Your task to perform on an android device: turn off notifications settings in the gmail app Image 0: 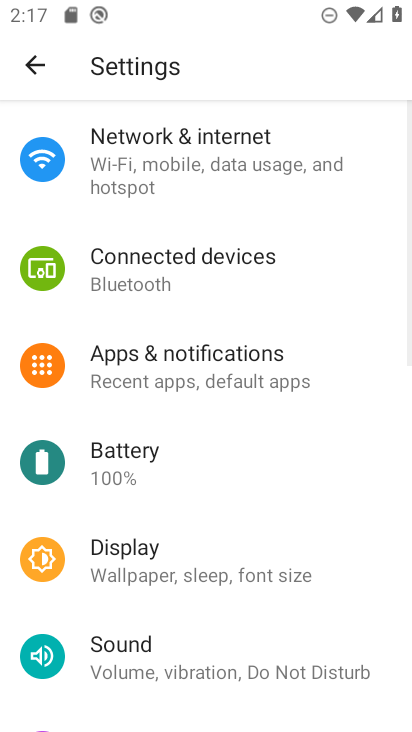
Step 0: press home button
Your task to perform on an android device: turn off notifications settings in the gmail app Image 1: 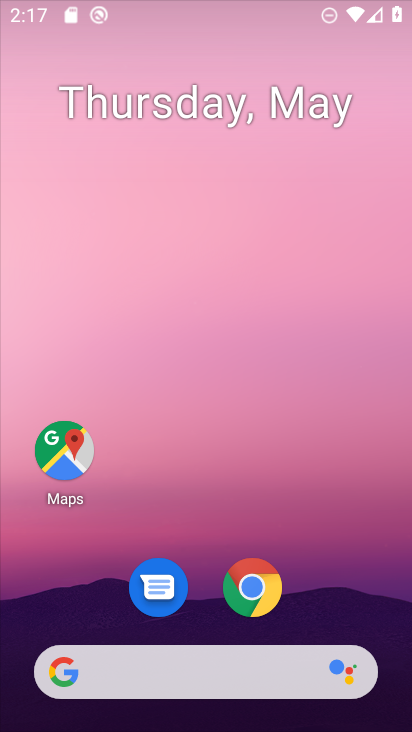
Step 1: drag from (310, 562) to (375, 130)
Your task to perform on an android device: turn off notifications settings in the gmail app Image 2: 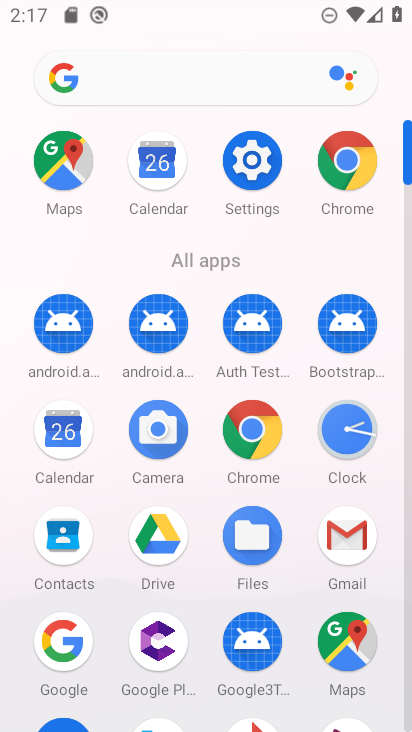
Step 2: click (344, 540)
Your task to perform on an android device: turn off notifications settings in the gmail app Image 3: 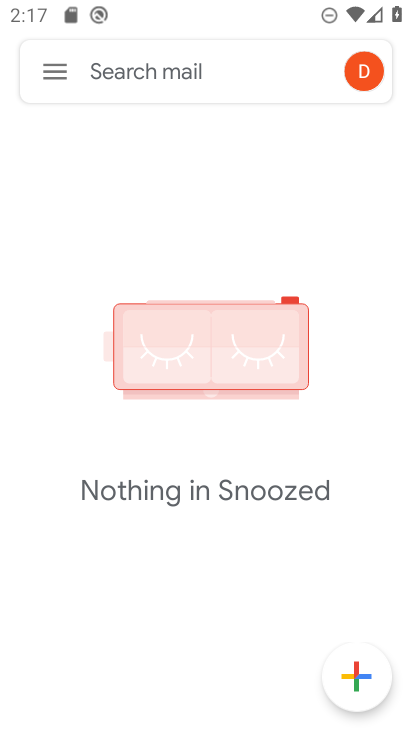
Step 3: click (47, 73)
Your task to perform on an android device: turn off notifications settings in the gmail app Image 4: 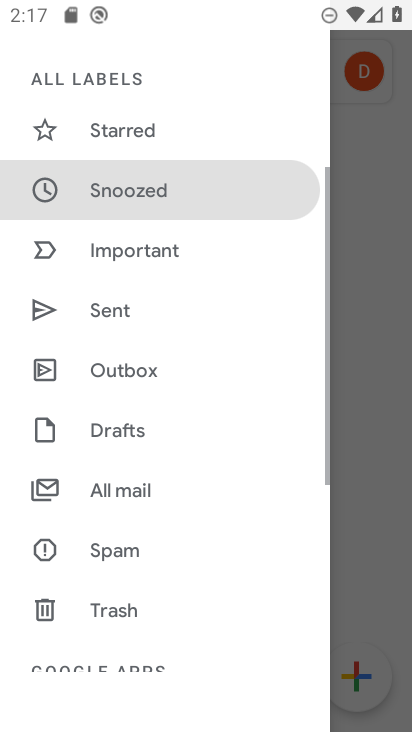
Step 4: drag from (141, 582) to (209, 112)
Your task to perform on an android device: turn off notifications settings in the gmail app Image 5: 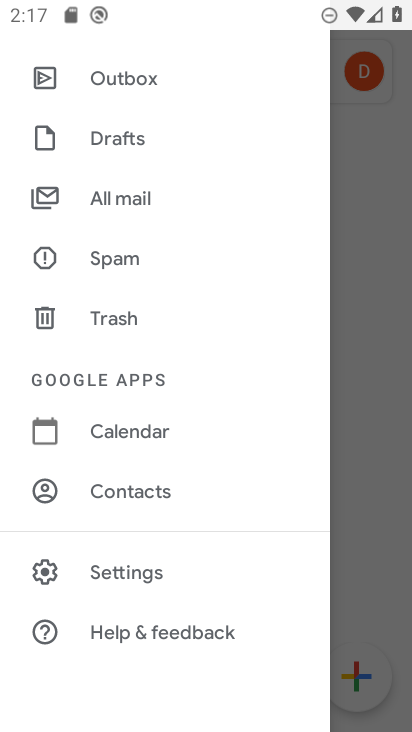
Step 5: click (126, 577)
Your task to perform on an android device: turn off notifications settings in the gmail app Image 6: 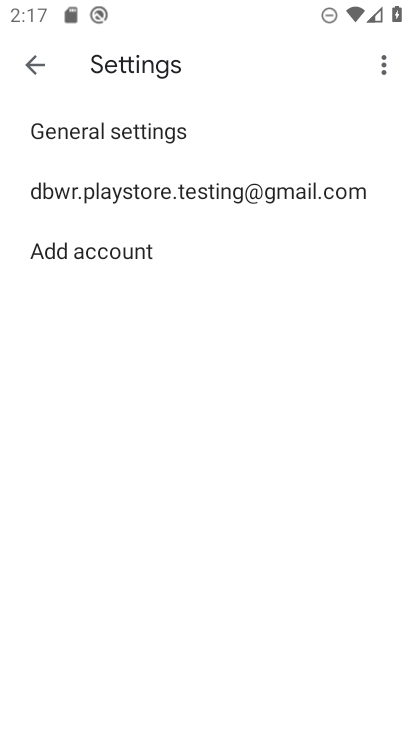
Step 6: click (143, 178)
Your task to perform on an android device: turn off notifications settings in the gmail app Image 7: 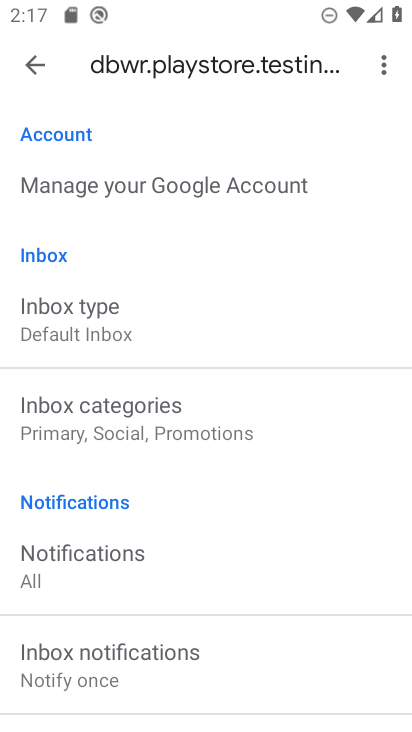
Step 7: drag from (168, 542) to (244, 229)
Your task to perform on an android device: turn off notifications settings in the gmail app Image 8: 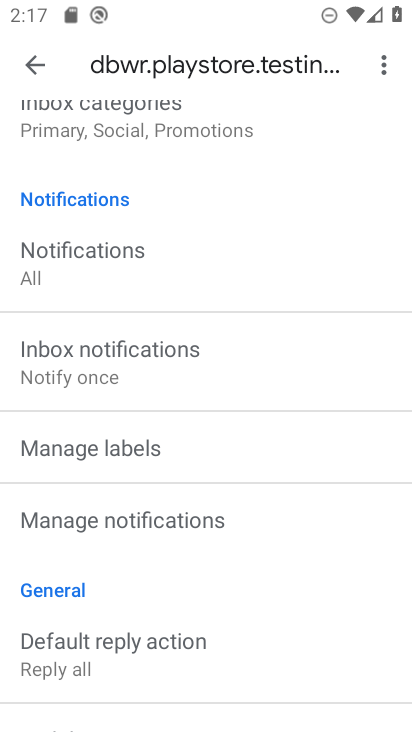
Step 8: click (115, 520)
Your task to perform on an android device: turn off notifications settings in the gmail app Image 9: 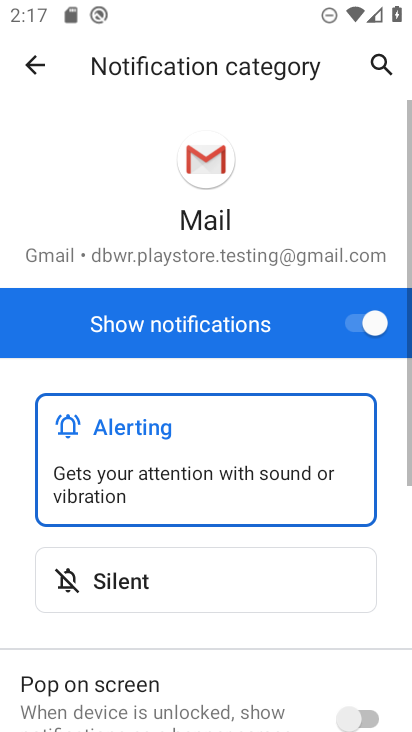
Step 9: click (345, 308)
Your task to perform on an android device: turn off notifications settings in the gmail app Image 10: 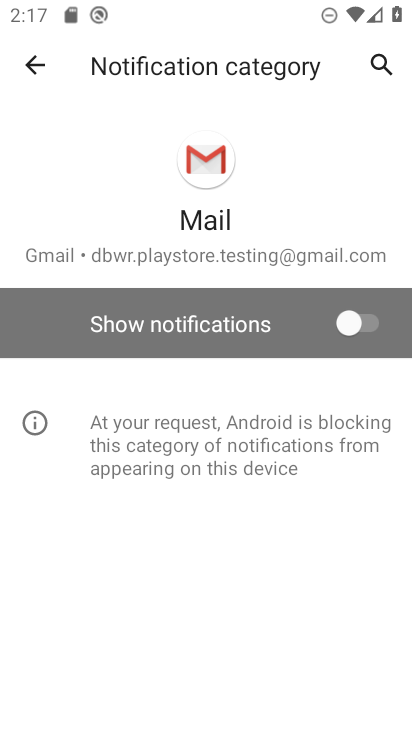
Step 10: task complete